Your task to perform on an android device: turn off smart reply in the gmail app Image 0: 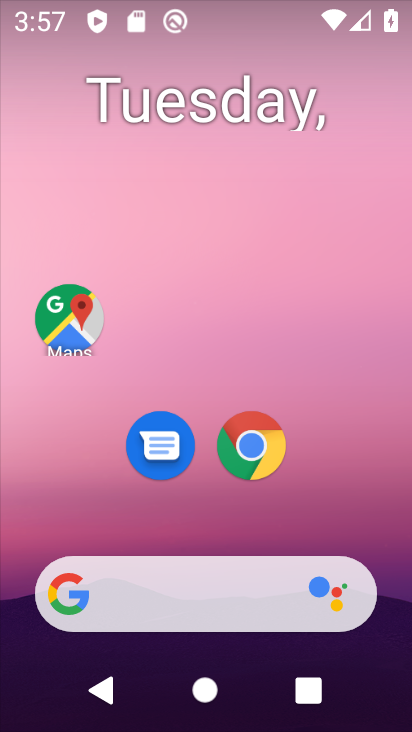
Step 0: drag from (270, 550) to (275, 142)
Your task to perform on an android device: turn off smart reply in the gmail app Image 1: 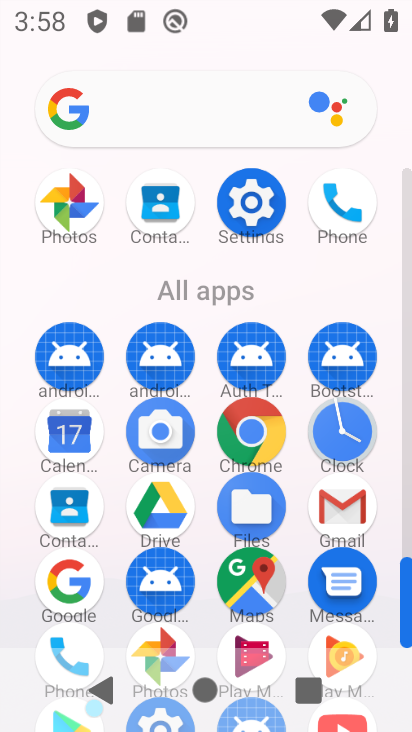
Step 1: click (329, 507)
Your task to perform on an android device: turn off smart reply in the gmail app Image 2: 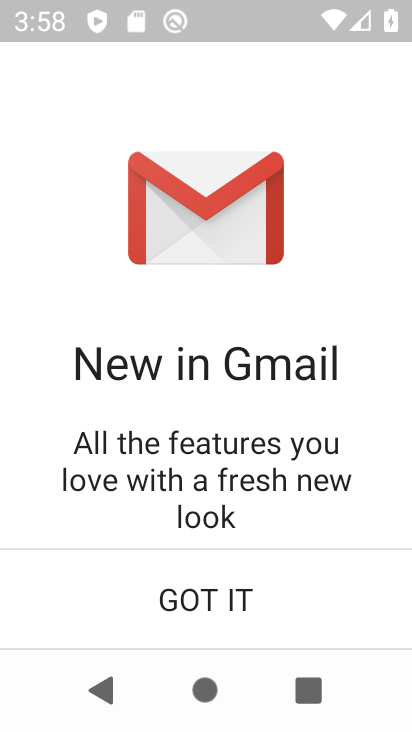
Step 2: click (247, 605)
Your task to perform on an android device: turn off smart reply in the gmail app Image 3: 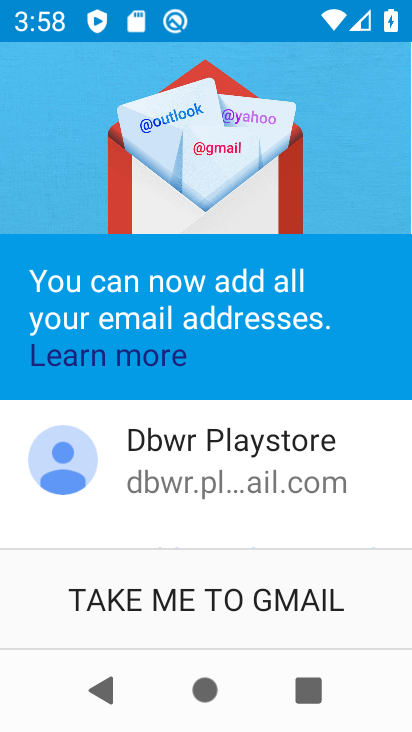
Step 3: click (247, 605)
Your task to perform on an android device: turn off smart reply in the gmail app Image 4: 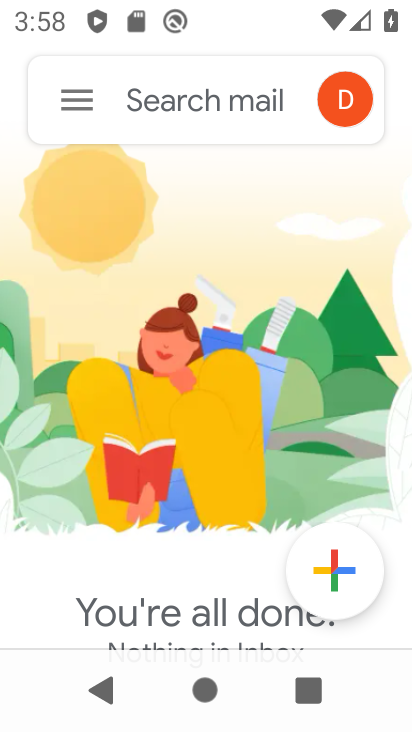
Step 4: click (88, 84)
Your task to perform on an android device: turn off smart reply in the gmail app Image 5: 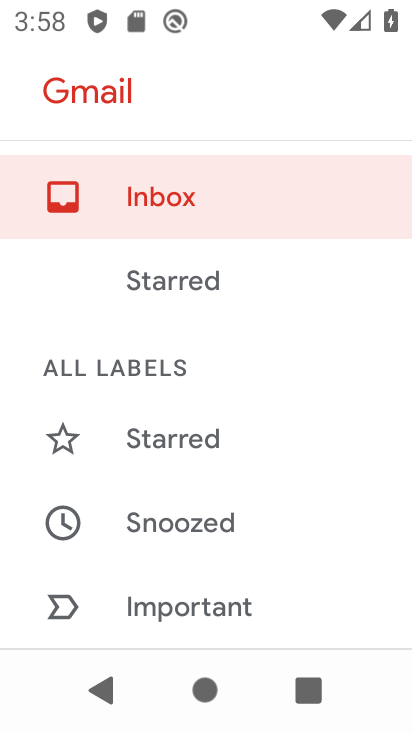
Step 5: drag from (229, 535) to (243, 140)
Your task to perform on an android device: turn off smart reply in the gmail app Image 6: 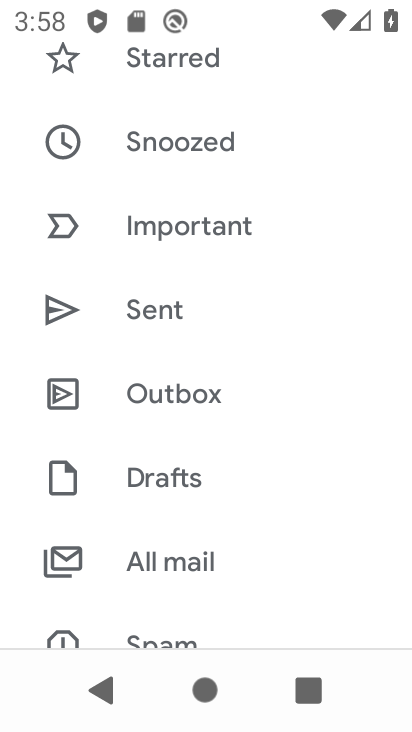
Step 6: drag from (244, 561) to (249, 107)
Your task to perform on an android device: turn off smart reply in the gmail app Image 7: 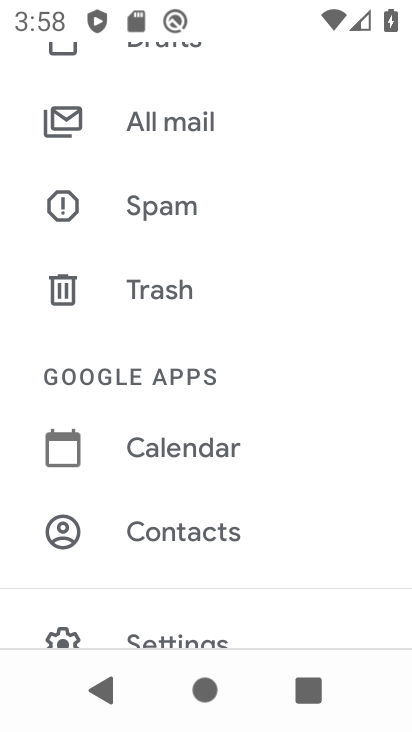
Step 7: drag from (206, 573) to (210, 243)
Your task to perform on an android device: turn off smart reply in the gmail app Image 8: 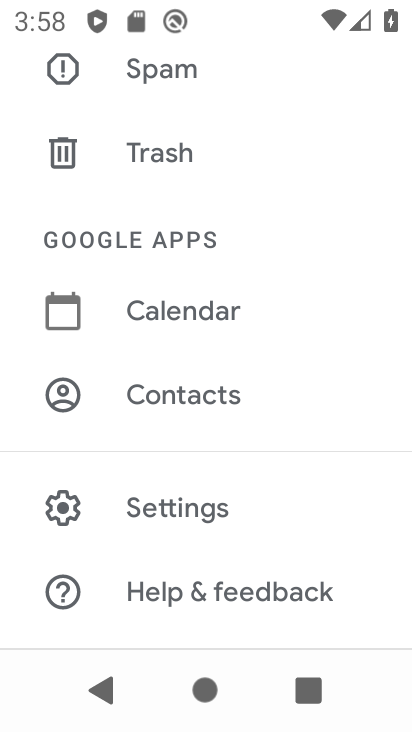
Step 8: click (183, 499)
Your task to perform on an android device: turn off smart reply in the gmail app Image 9: 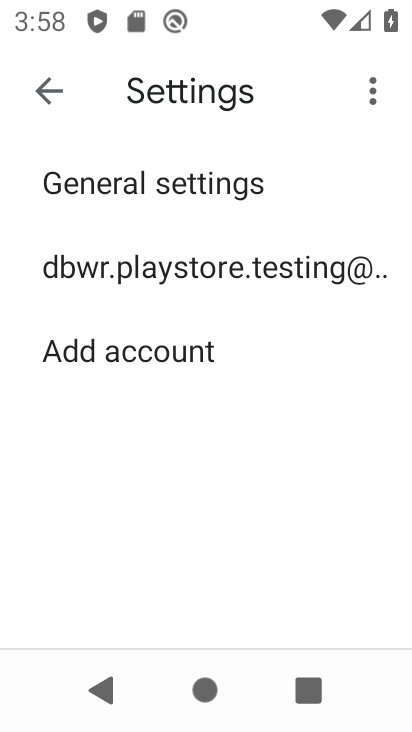
Step 9: click (264, 256)
Your task to perform on an android device: turn off smart reply in the gmail app Image 10: 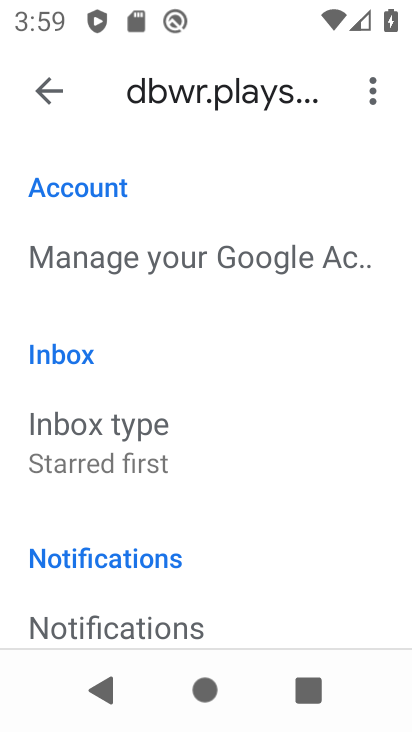
Step 10: drag from (204, 649) to (176, 150)
Your task to perform on an android device: turn off smart reply in the gmail app Image 11: 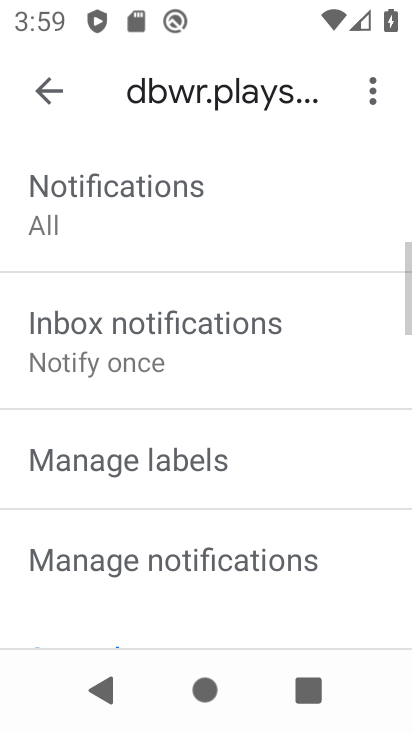
Step 11: drag from (213, 468) to (213, 160)
Your task to perform on an android device: turn off smart reply in the gmail app Image 12: 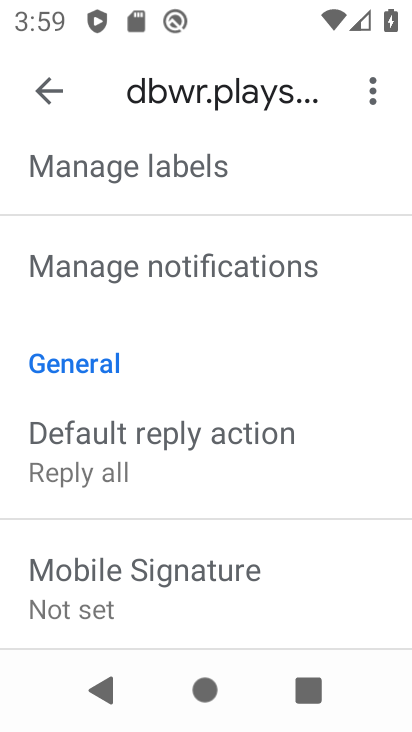
Step 12: drag from (200, 573) to (208, 168)
Your task to perform on an android device: turn off smart reply in the gmail app Image 13: 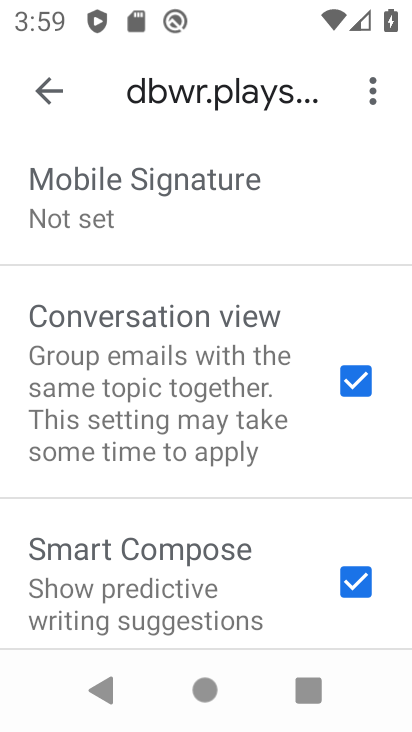
Step 13: drag from (236, 578) to (266, 236)
Your task to perform on an android device: turn off smart reply in the gmail app Image 14: 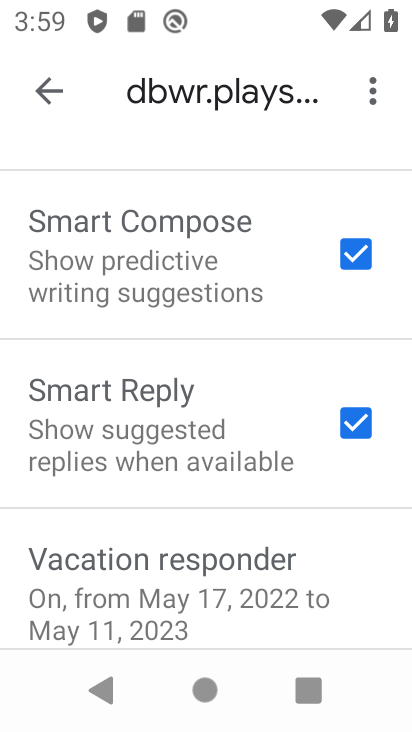
Step 14: click (354, 418)
Your task to perform on an android device: turn off smart reply in the gmail app Image 15: 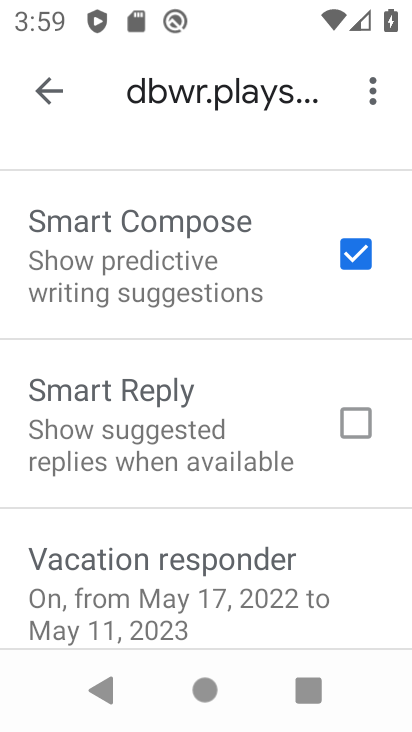
Step 15: task complete